Your task to perform on an android device: toggle javascript in the chrome app Image 0: 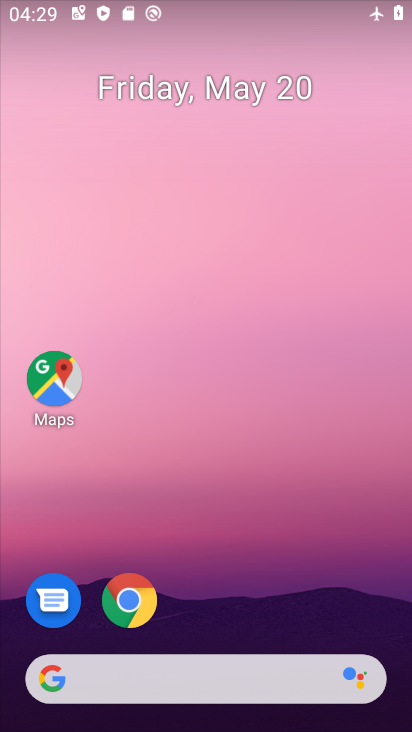
Step 0: drag from (275, 534) to (254, 38)
Your task to perform on an android device: toggle javascript in the chrome app Image 1: 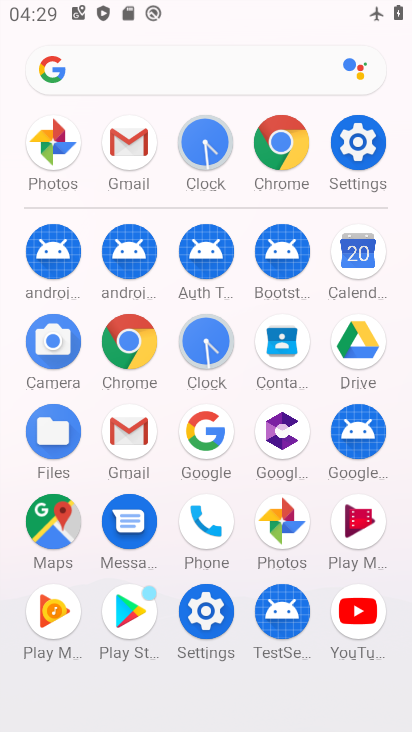
Step 1: drag from (3, 536) to (6, 230)
Your task to perform on an android device: toggle javascript in the chrome app Image 2: 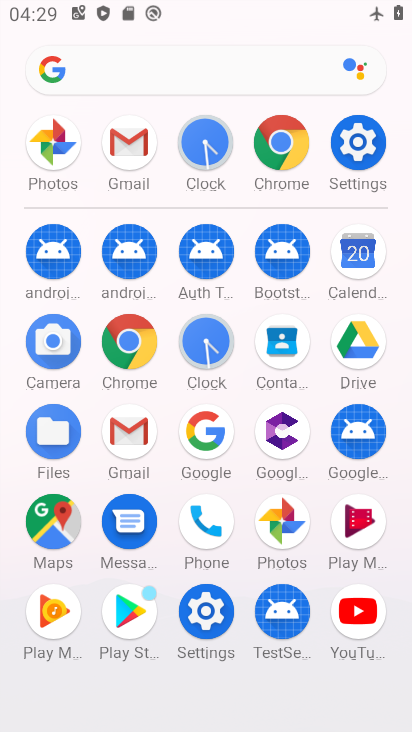
Step 2: click (130, 340)
Your task to perform on an android device: toggle javascript in the chrome app Image 3: 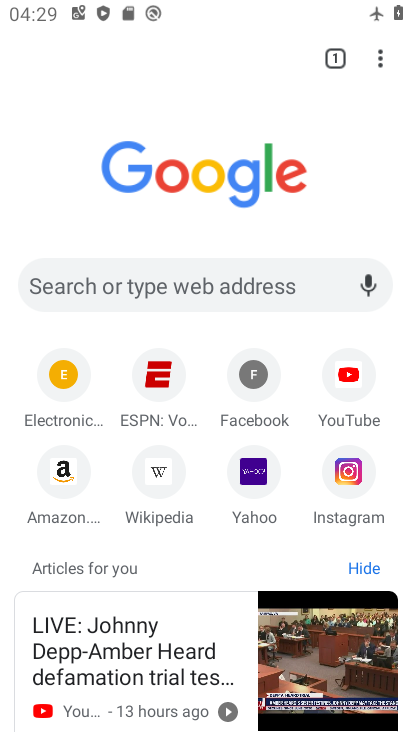
Step 3: drag from (379, 54) to (158, 568)
Your task to perform on an android device: toggle javascript in the chrome app Image 4: 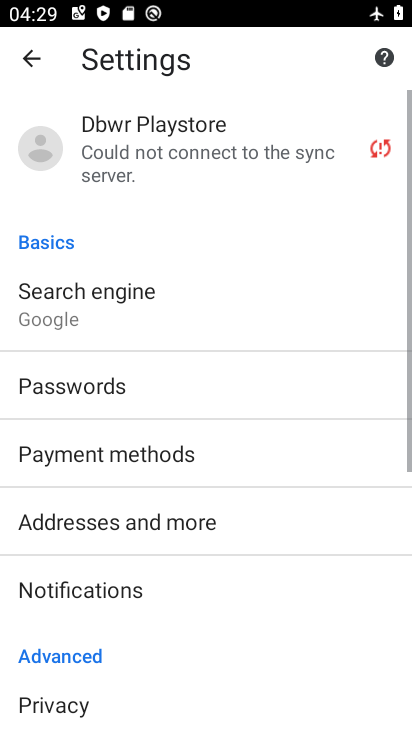
Step 4: drag from (162, 586) to (224, 106)
Your task to perform on an android device: toggle javascript in the chrome app Image 5: 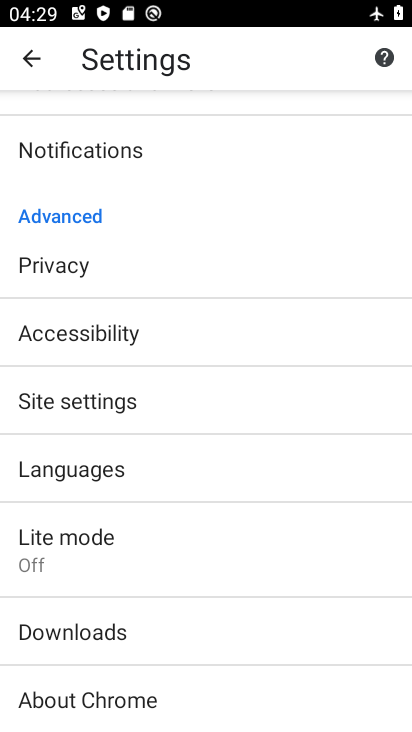
Step 5: drag from (205, 527) to (222, 182)
Your task to perform on an android device: toggle javascript in the chrome app Image 6: 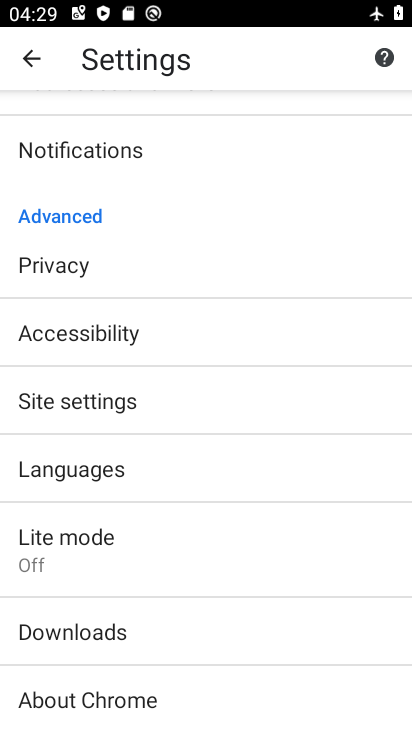
Step 6: drag from (194, 589) to (201, 187)
Your task to perform on an android device: toggle javascript in the chrome app Image 7: 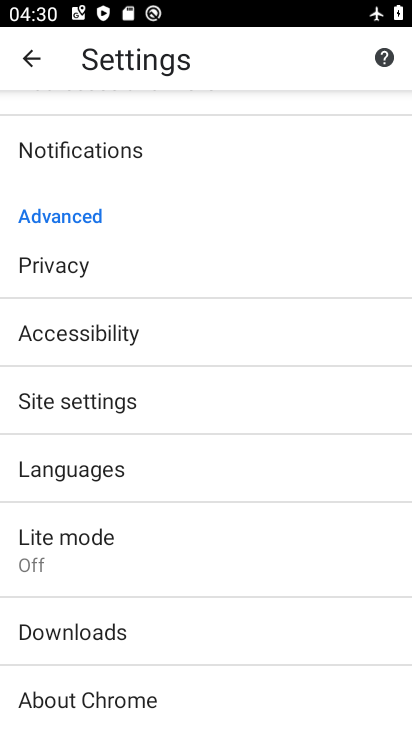
Step 7: click (103, 462)
Your task to perform on an android device: toggle javascript in the chrome app Image 8: 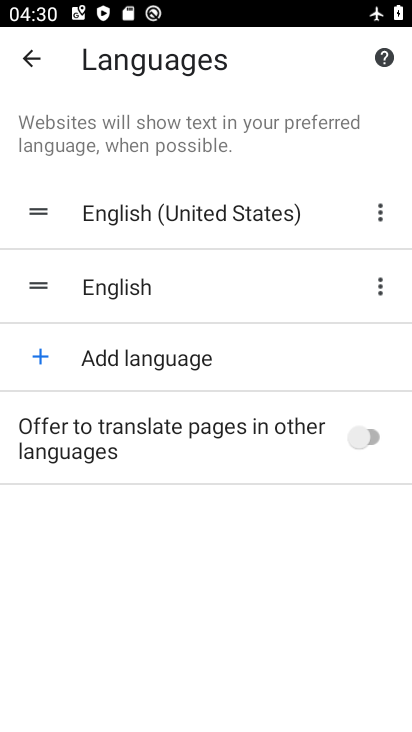
Step 8: click (365, 433)
Your task to perform on an android device: toggle javascript in the chrome app Image 9: 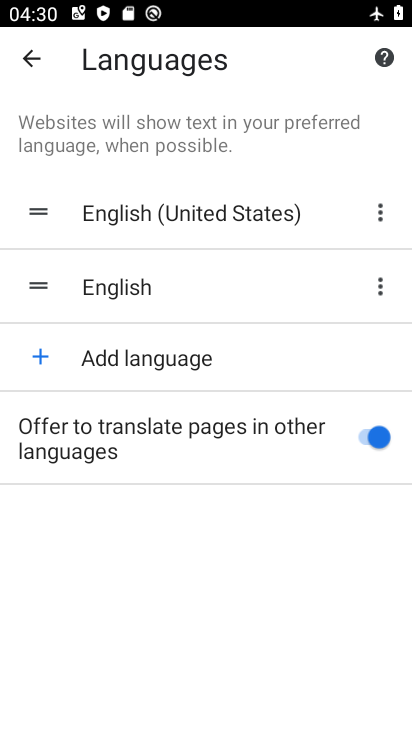
Step 9: click (365, 433)
Your task to perform on an android device: toggle javascript in the chrome app Image 10: 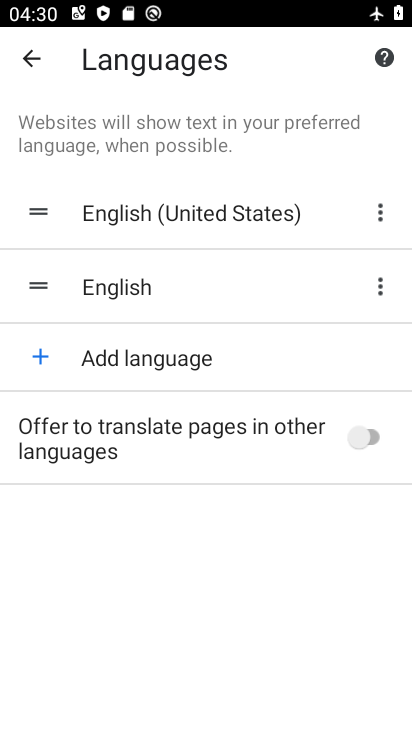
Step 10: click (24, 61)
Your task to perform on an android device: toggle javascript in the chrome app Image 11: 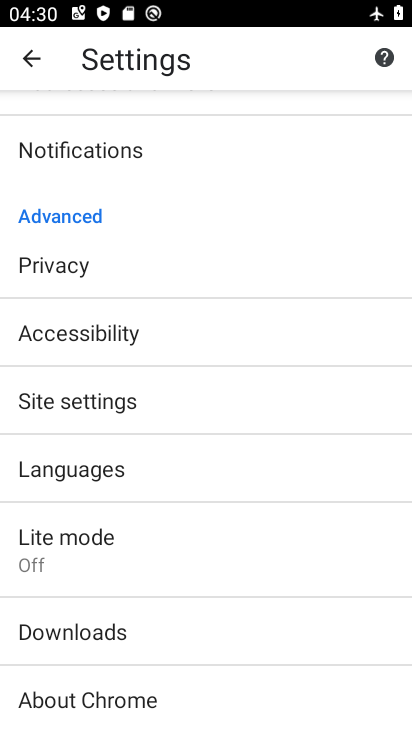
Step 11: drag from (299, 245) to (301, 628)
Your task to perform on an android device: toggle javascript in the chrome app Image 12: 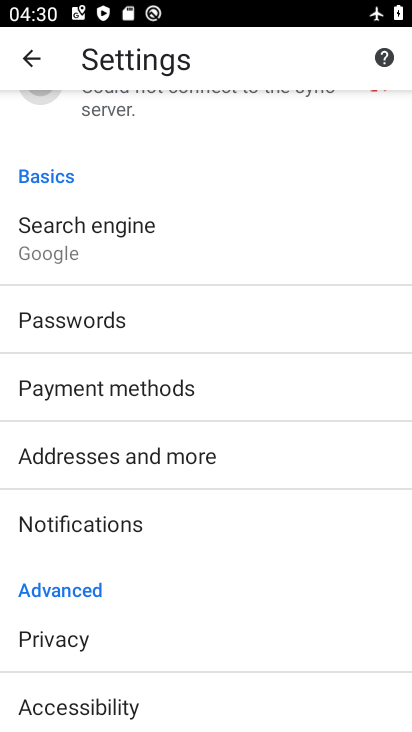
Step 12: drag from (241, 210) to (236, 633)
Your task to perform on an android device: toggle javascript in the chrome app Image 13: 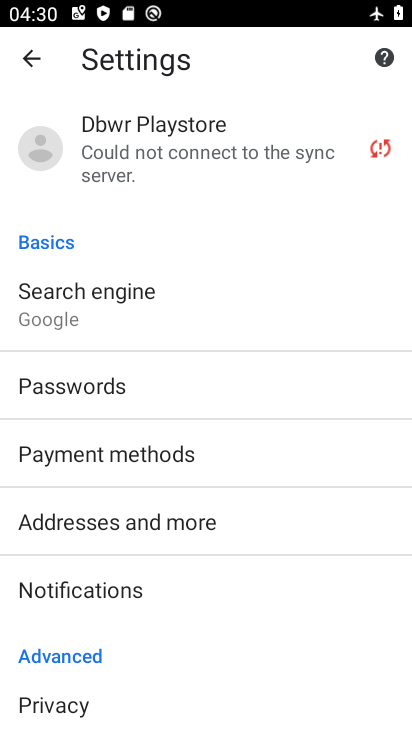
Step 13: drag from (216, 601) to (245, 168)
Your task to perform on an android device: toggle javascript in the chrome app Image 14: 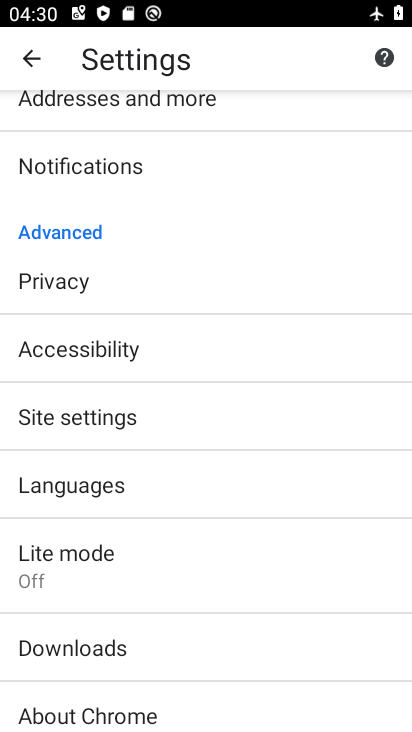
Step 14: drag from (223, 603) to (250, 194)
Your task to perform on an android device: toggle javascript in the chrome app Image 15: 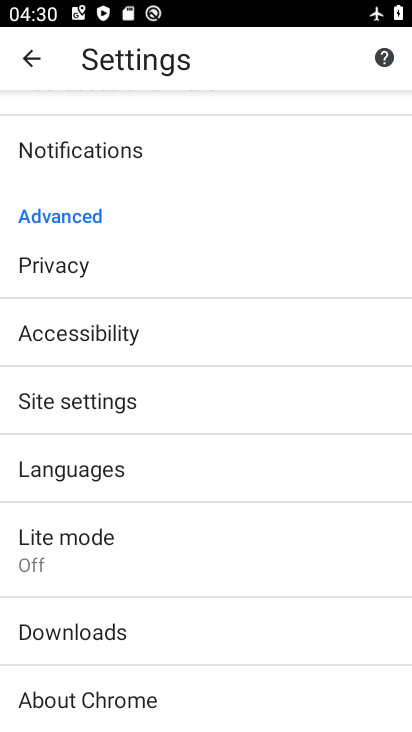
Step 15: drag from (248, 207) to (212, 549)
Your task to perform on an android device: toggle javascript in the chrome app Image 16: 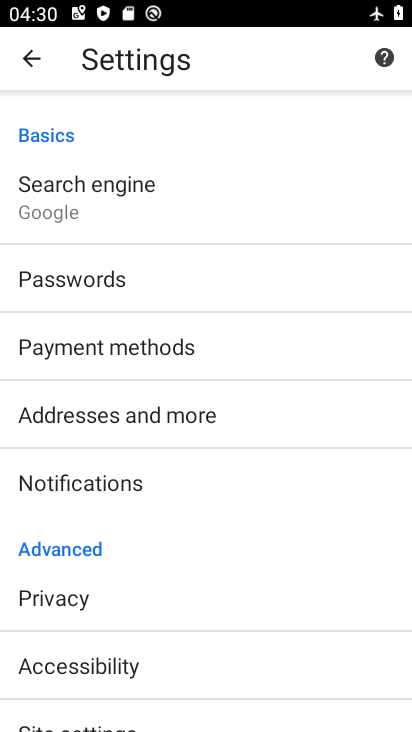
Step 16: drag from (129, 664) to (190, 307)
Your task to perform on an android device: toggle javascript in the chrome app Image 17: 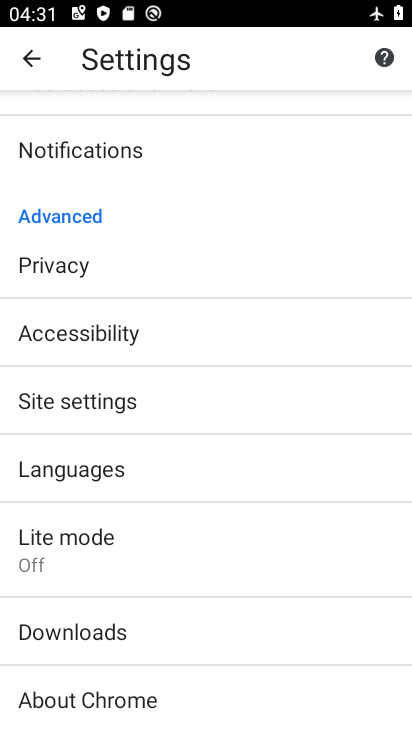
Step 17: click (113, 395)
Your task to perform on an android device: toggle javascript in the chrome app Image 18: 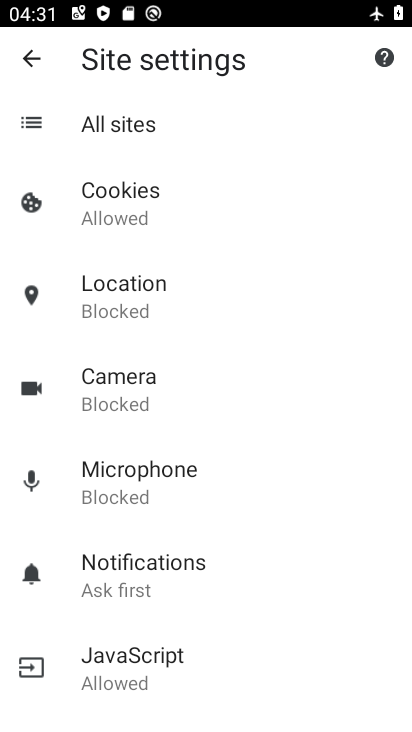
Step 18: click (149, 657)
Your task to perform on an android device: toggle javascript in the chrome app Image 19: 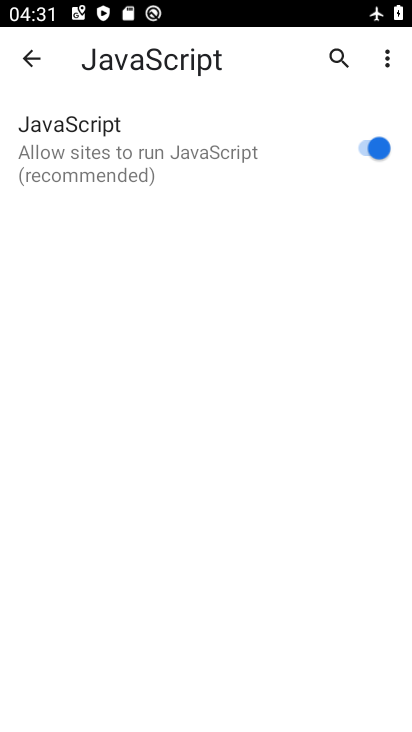
Step 19: click (370, 143)
Your task to perform on an android device: toggle javascript in the chrome app Image 20: 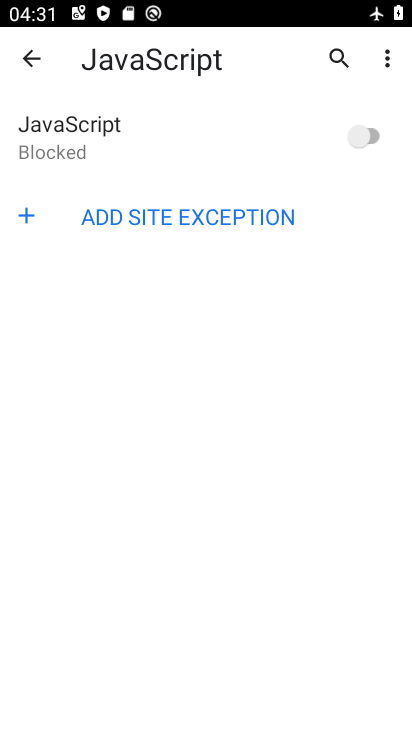
Step 20: task complete